Your task to perform on an android device: open app "Lyft - Rideshare, Bikes, Scooters & Transit" Image 0: 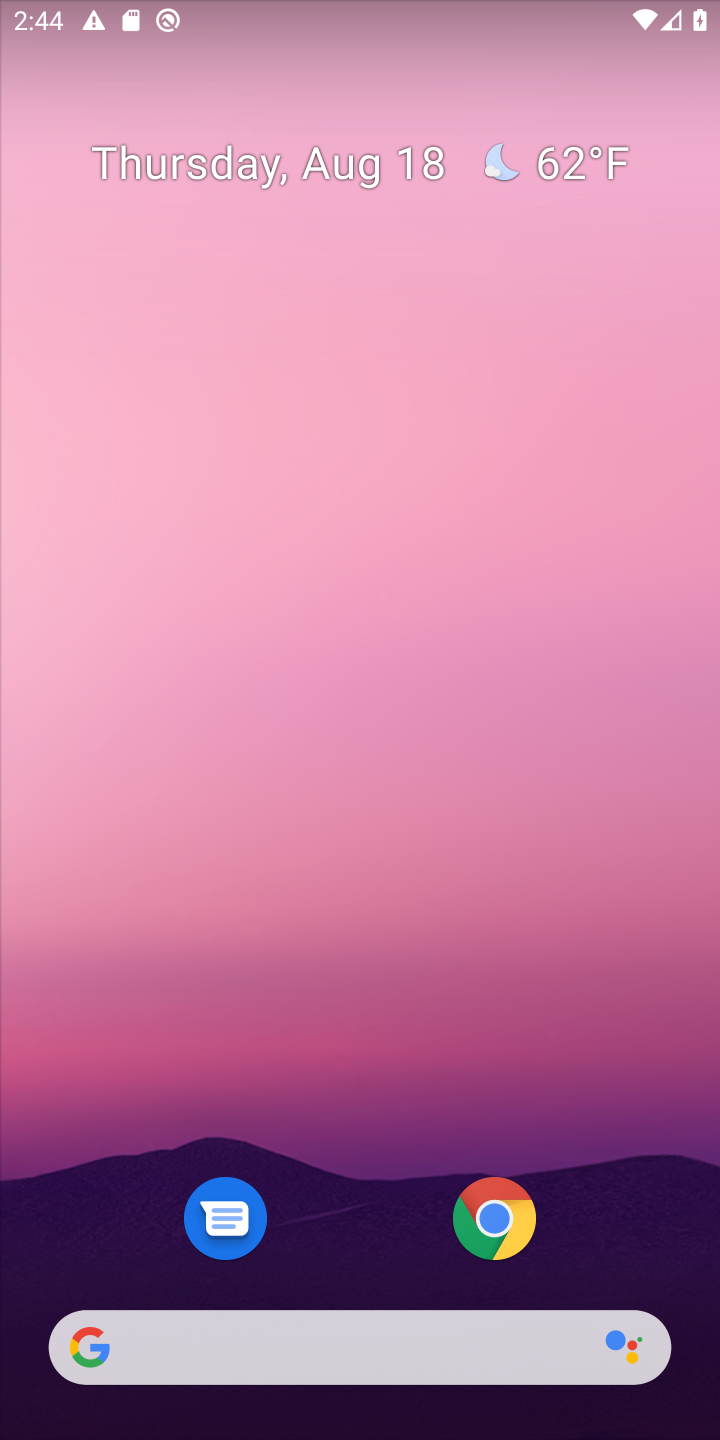
Step 0: drag from (340, 1194) to (289, 329)
Your task to perform on an android device: open app "Lyft - Rideshare, Bikes, Scooters & Transit" Image 1: 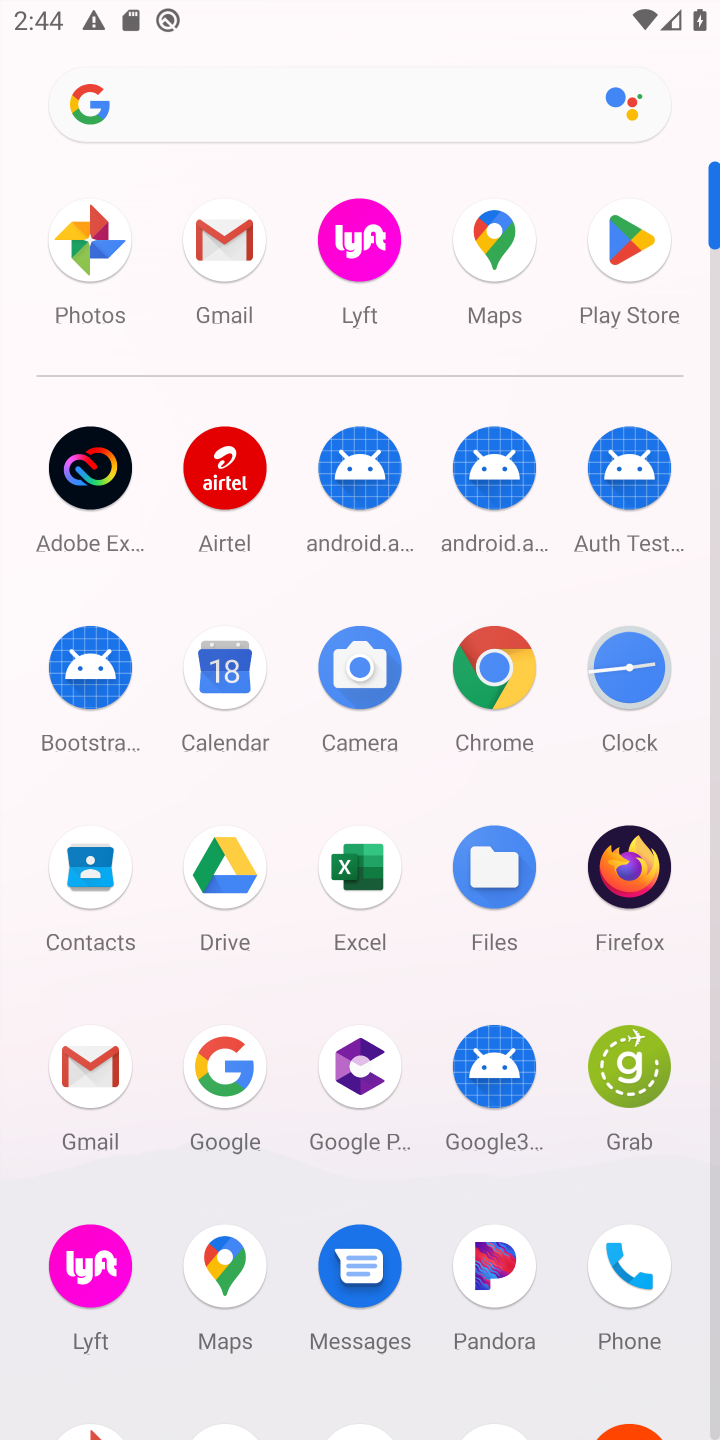
Step 1: click (646, 255)
Your task to perform on an android device: open app "Lyft - Rideshare, Bikes, Scooters & Transit" Image 2: 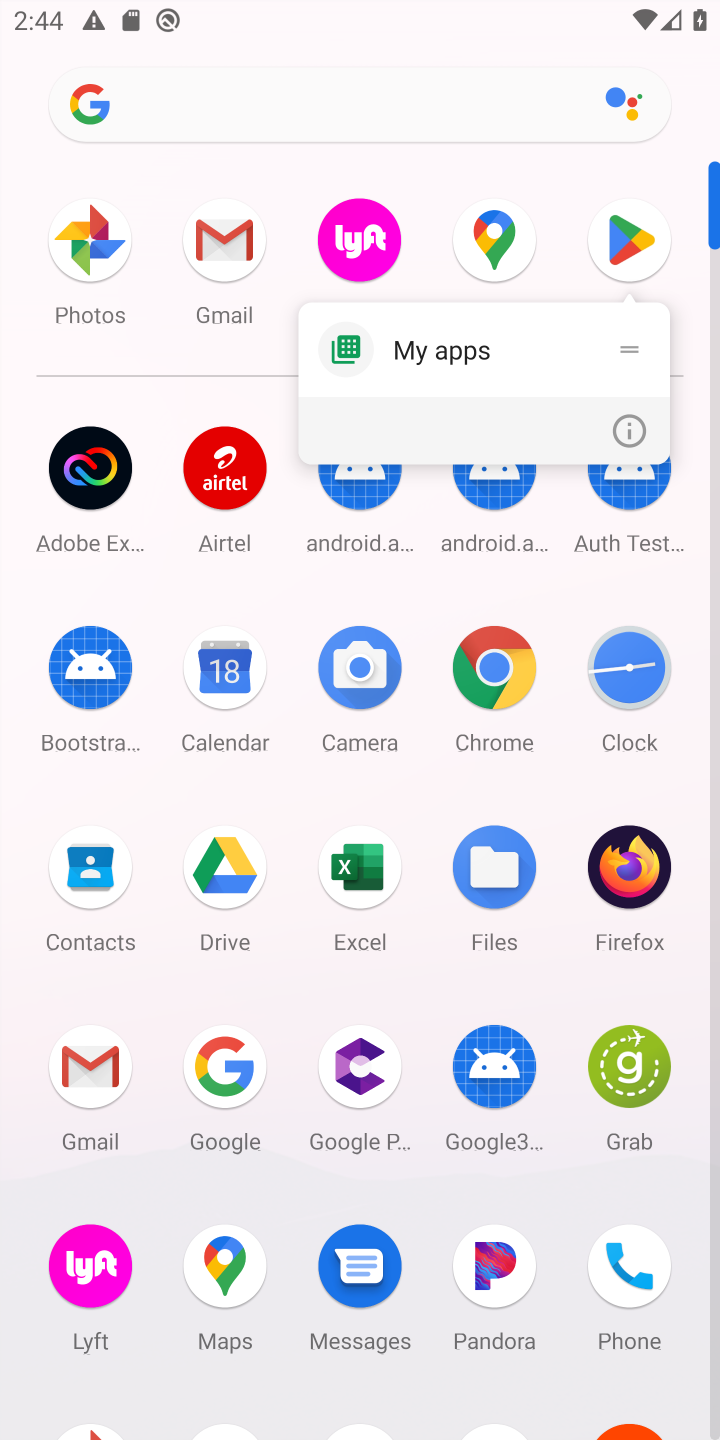
Step 2: click (635, 248)
Your task to perform on an android device: open app "Lyft - Rideshare, Bikes, Scooters & Transit" Image 3: 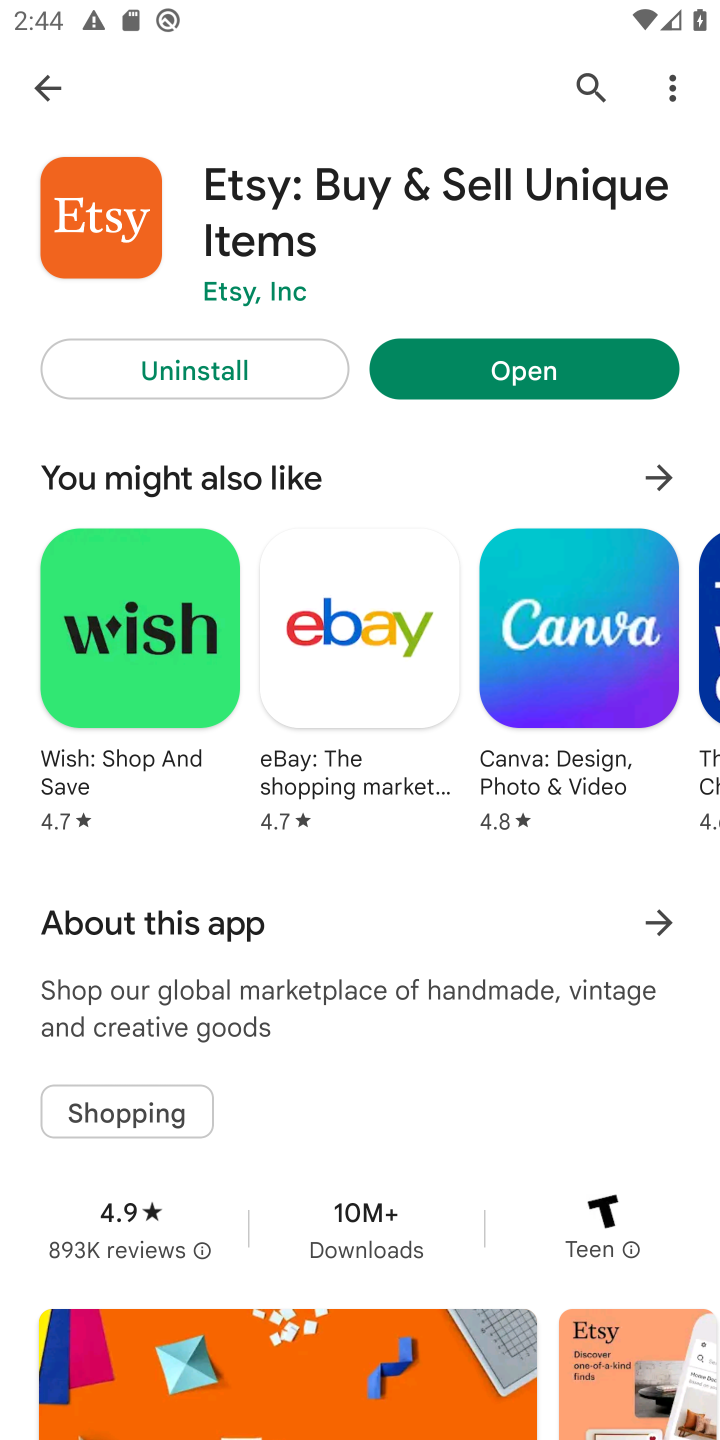
Step 3: click (592, 73)
Your task to perform on an android device: open app "Lyft - Rideshare, Bikes, Scooters & Transit" Image 4: 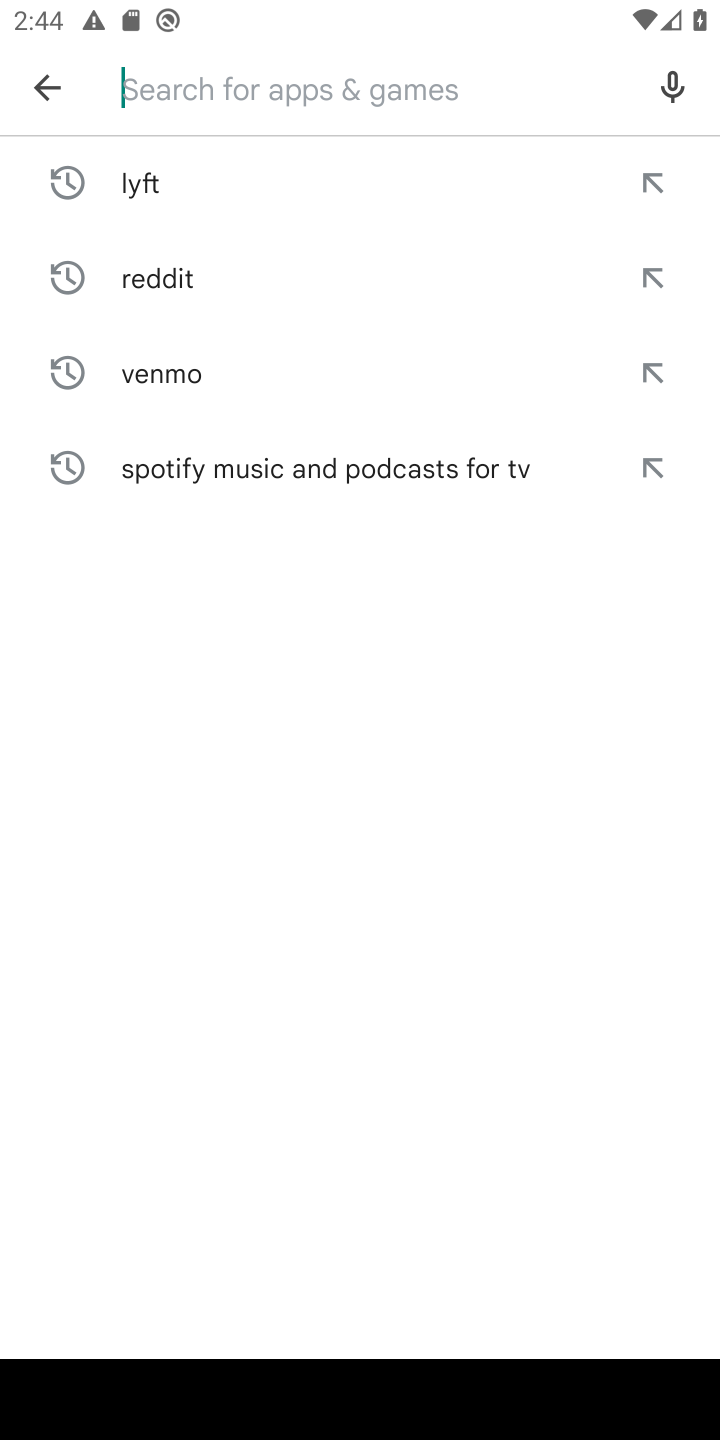
Step 4: type "Lyft"
Your task to perform on an android device: open app "Lyft - Rideshare, Bikes, Scooters & Transit" Image 5: 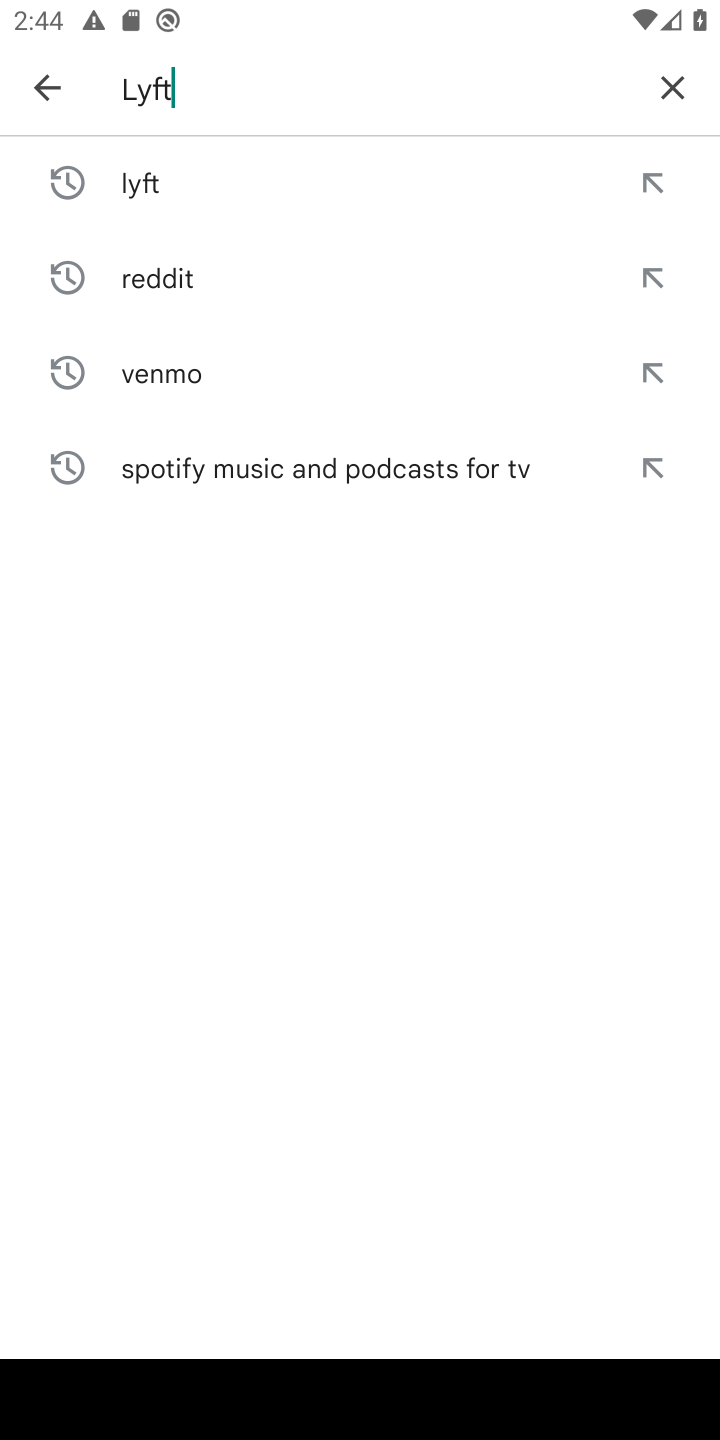
Step 5: type ""
Your task to perform on an android device: open app "Lyft - Rideshare, Bikes, Scooters & Transit" Image 6: 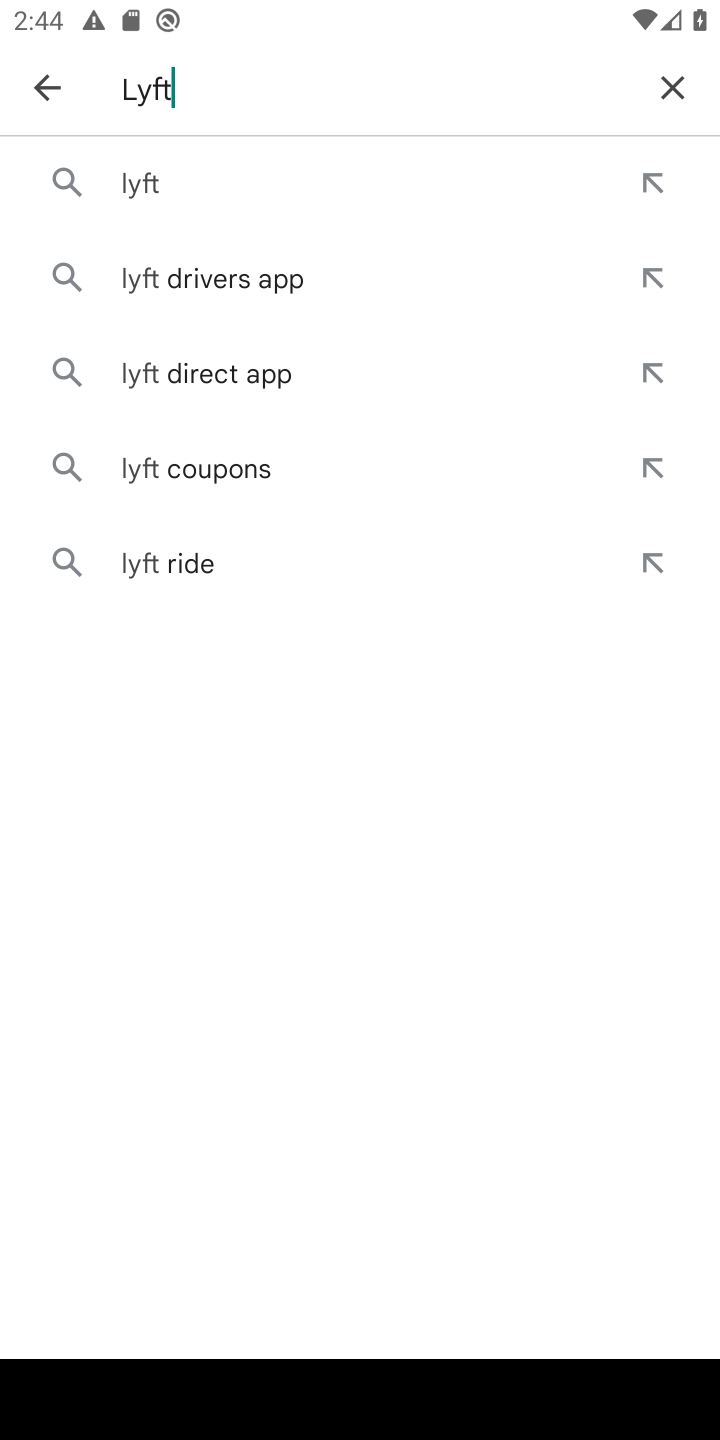
Step 6: click (141, 187)
Your task to perform on an android device: open app "Lyft - Rideshare, Bikes, Scooters & Transit" Image 7: 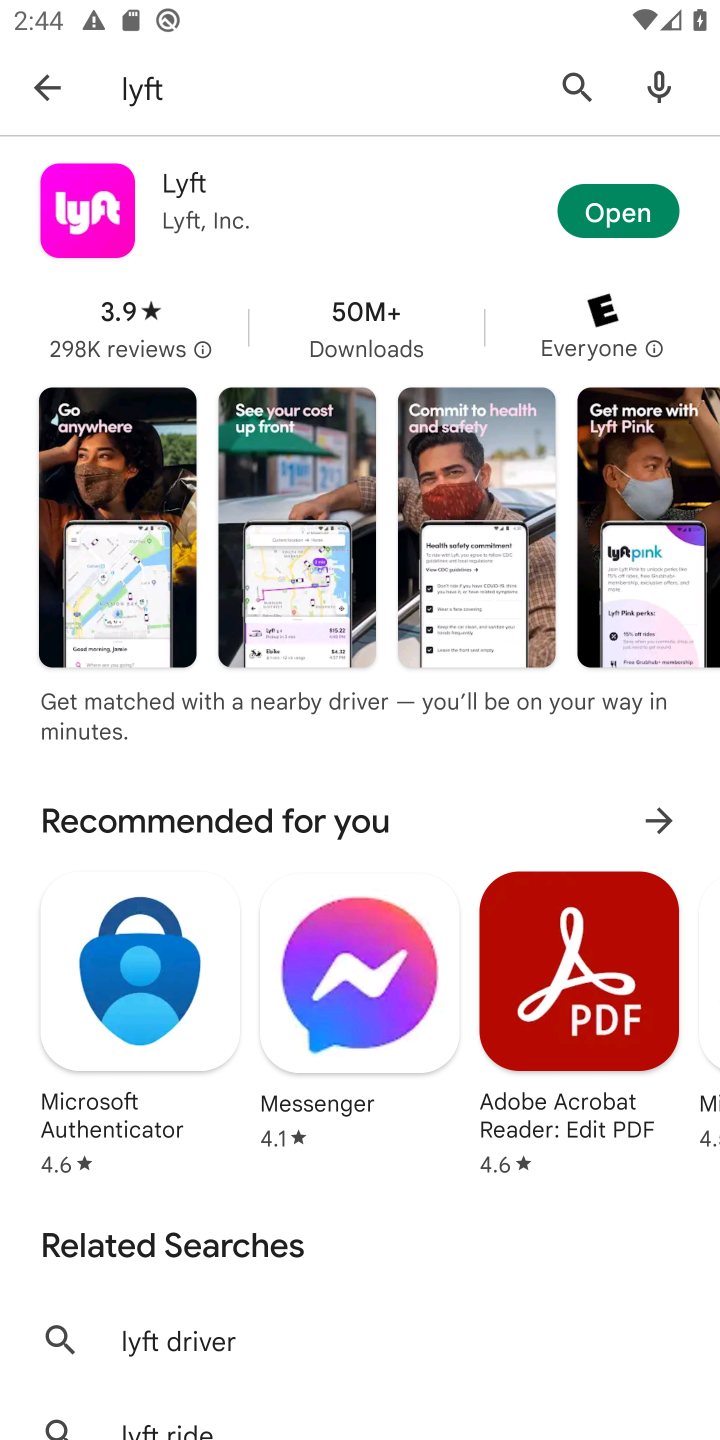
Step 7: click (609, 202)
Your task to perform on an android device: open app "Lyft - Rideshare, Bikes, Scooters & Transit" Image 8: 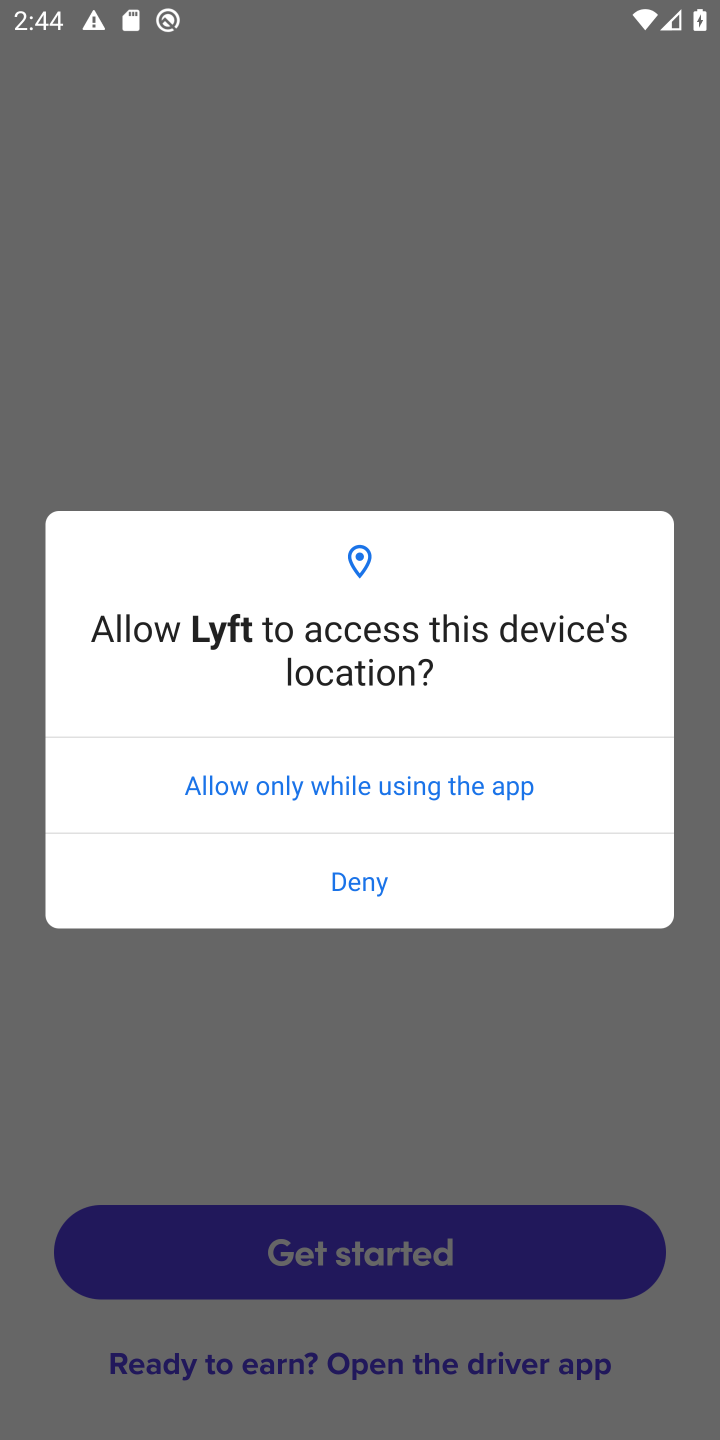
Step 8: task complete